Your task to perform on an android device: What's on my calendar today? Image 0: 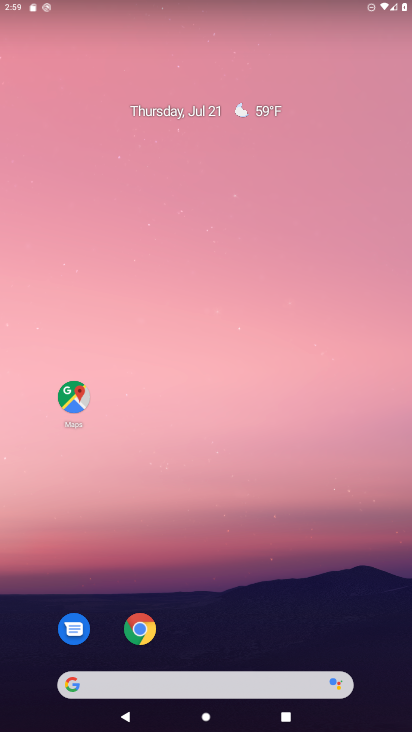
Step 0: drag from (227, 642) to (220, 118)
Your task to perform on an android device: What's on my calendar today? Image 1: 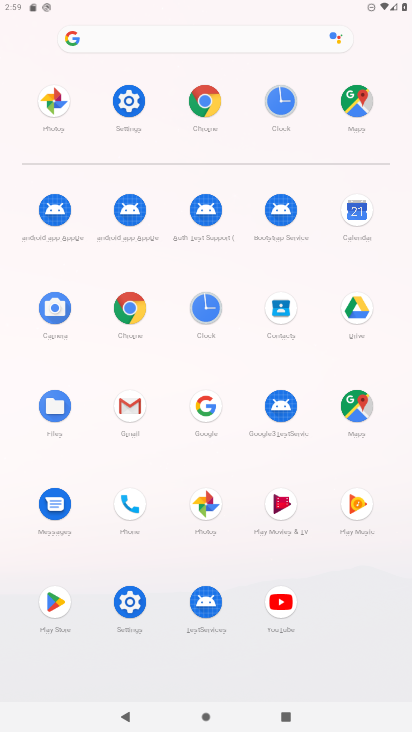
Step 1: click (354, 207)
Your task to perform on an android device: What's on my calendar today? Image 2: 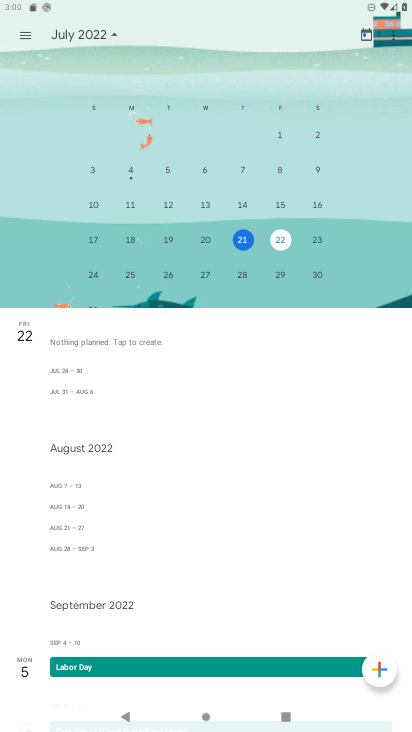
Step 2: click (240, 237)
Your task to perform on an android device: What's on my calendar today? Image 3: 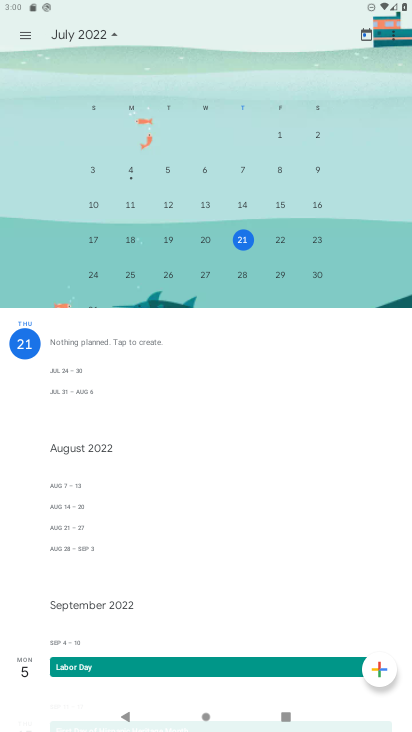
Step 3: click (240, 237)
Your task to perform on an android device: What's on my calendar today? Image 4: 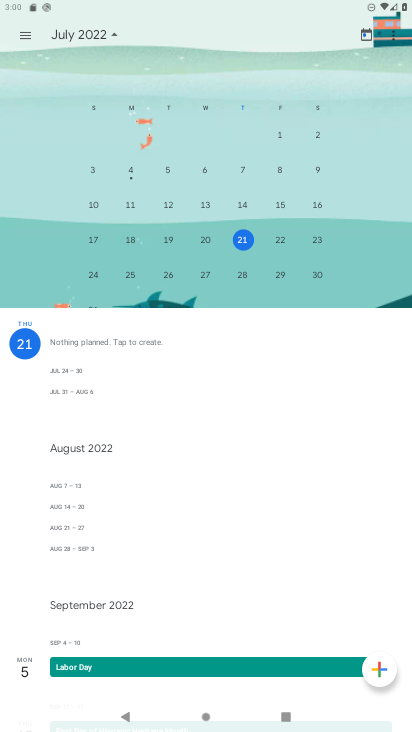
Step 4: task complete